Your task to perform on an android device: manage bookmarks in the chrome app Image 0: 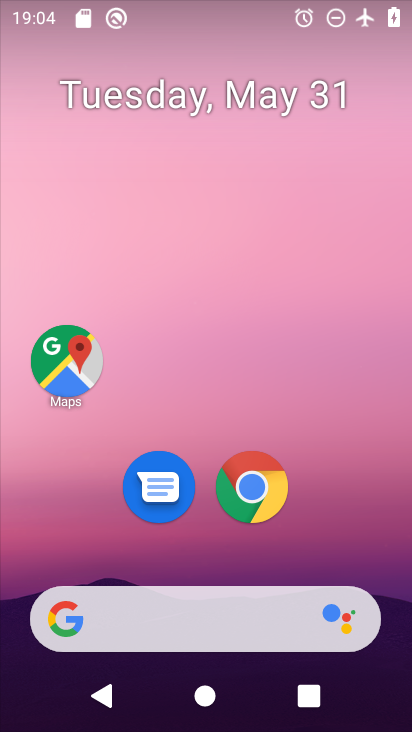
Step 0: click (251, 488)
Your task to perform on an android device: manage bookmarks in the chrome app Image 1: 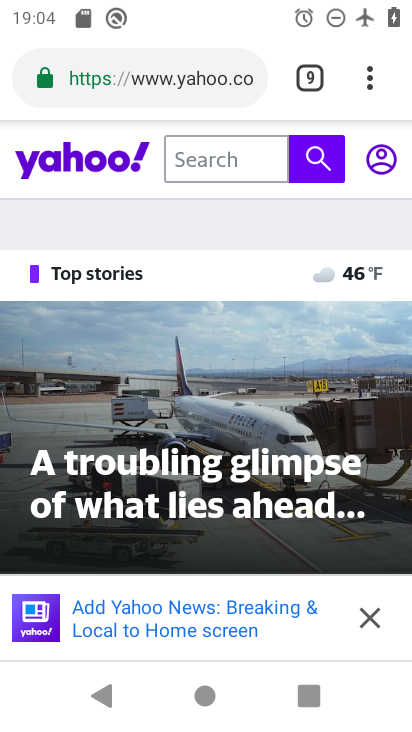
Step 1: click (368, 74)
Your task to perform on an android device: manage bookmarks in the chrome app Image 2: 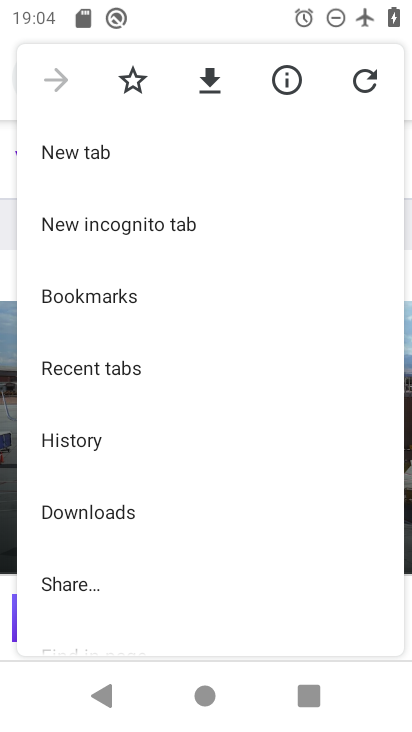
Step 2: drag from (199, 476) to (189, 240)
Your task to perform on an android device: manage bookmarks in the chrome app Image 3: 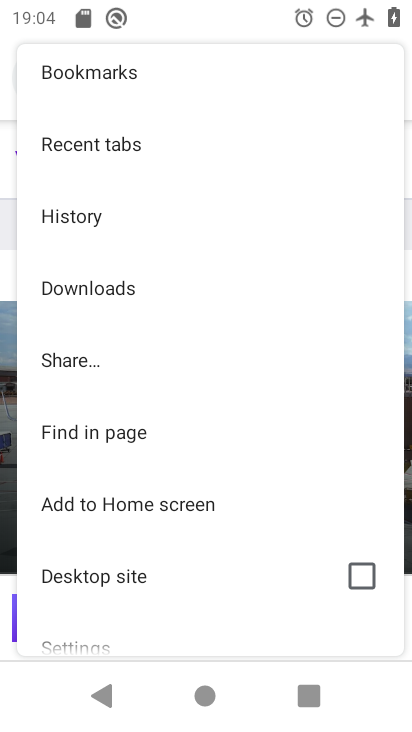
Step 3: click (91, 68)
Your task to perform on an android device: manage bookmarks in the chrome app Image 4: 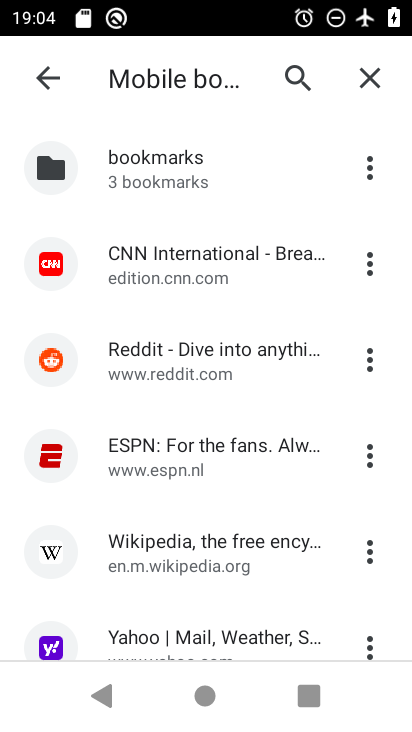
Step 4: click (370, 163)
Your task to perform on an android device: manage bookmarks in the chrome app Image 5: 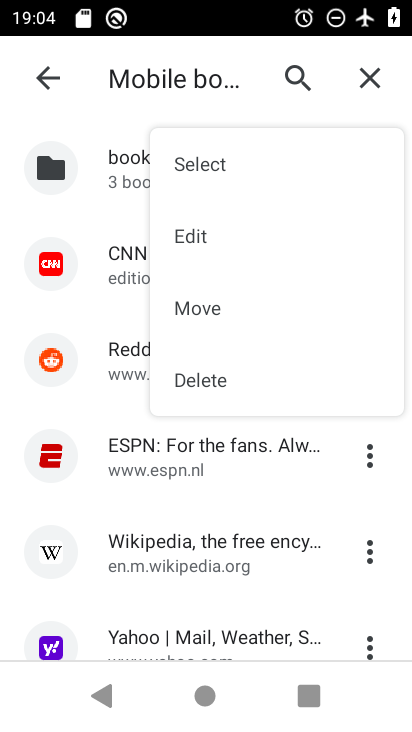
Step 5: click (188, 233)
Your task to perform on an android device: manage bookmarks in the chrome app Image 6: 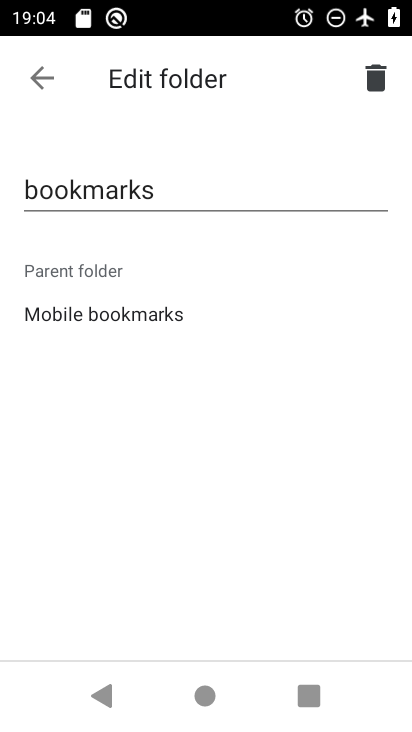
Step 6: task complete